Your task to perform on an android device: turn on airplane mode Image 0: 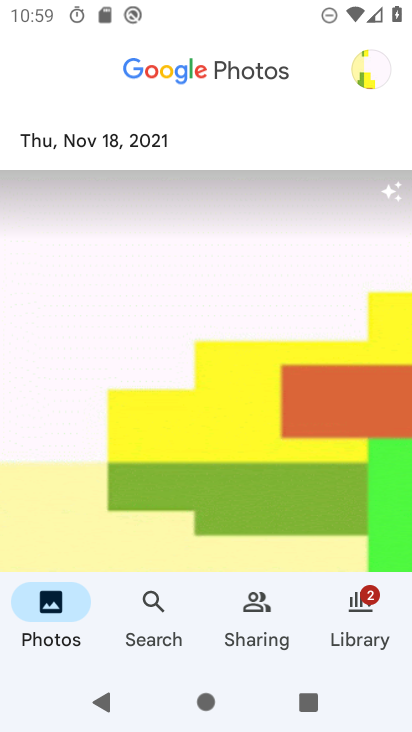
Step 0: press home button
Your task to perform on an android device: turn on airplane mode Image 1: 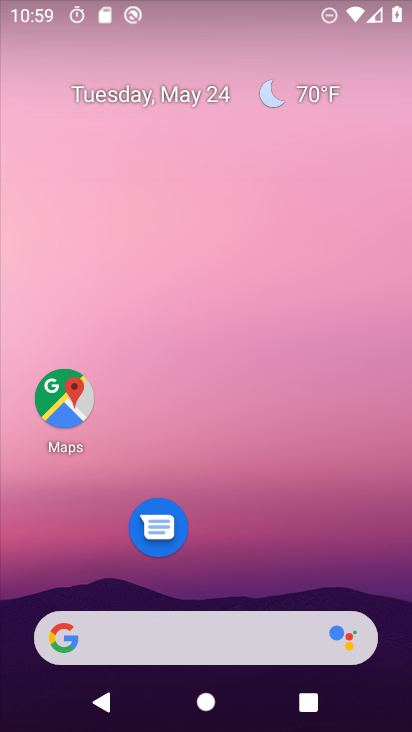
Step 1: drag from (246, 548) to (283, 6)
Your task to perform on an android device: turn on airplane mode Image 2: 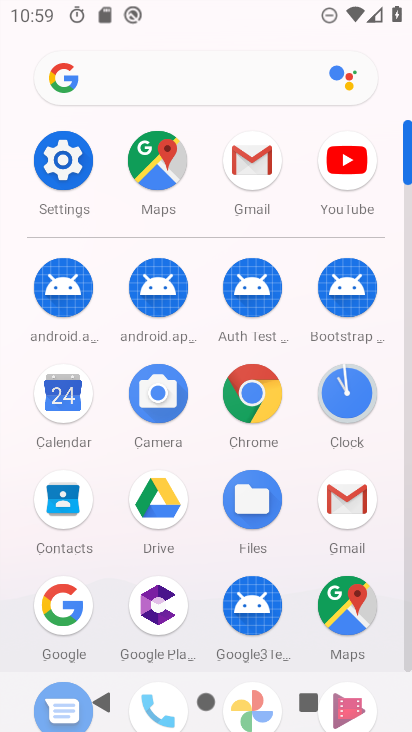
Step 2: click (66, 155)
Your task to perform on an android device: turn on airplane mode Image 3: 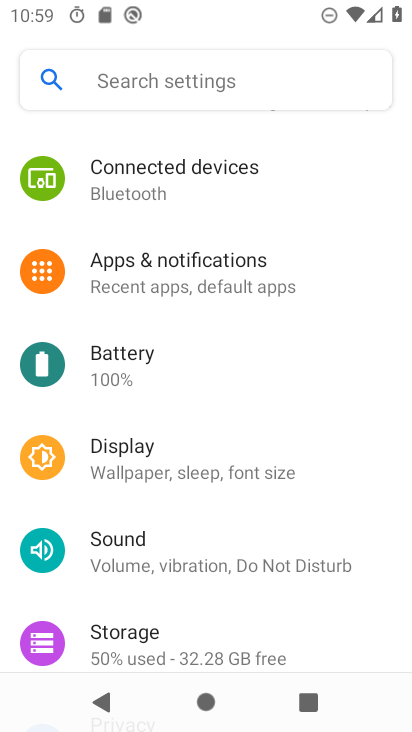
Step 3: drag from (192, 221) to (235, 635)
Your task to perform on an android device: turn on airplane mode Image 4: 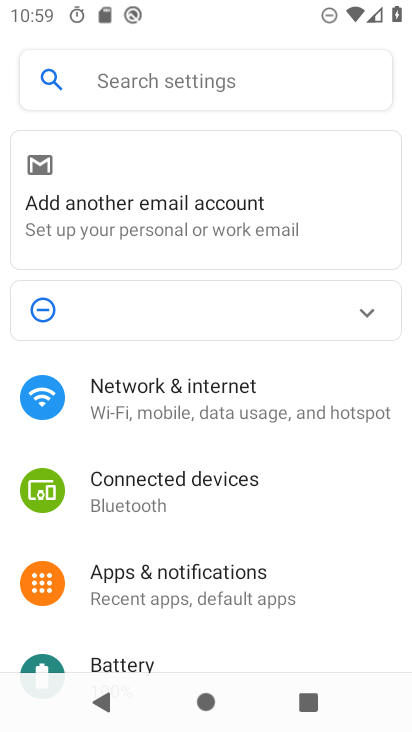
Step 4: click (198, 408)
Your task to perform on an android device: turn on airplane mode Image 5: 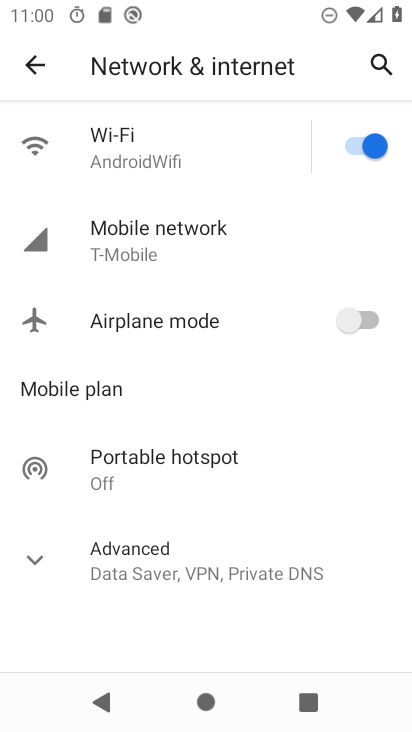
Step 5: click (365, 320)
Your task to perform on an android device: turn on airplane mode Image 6: 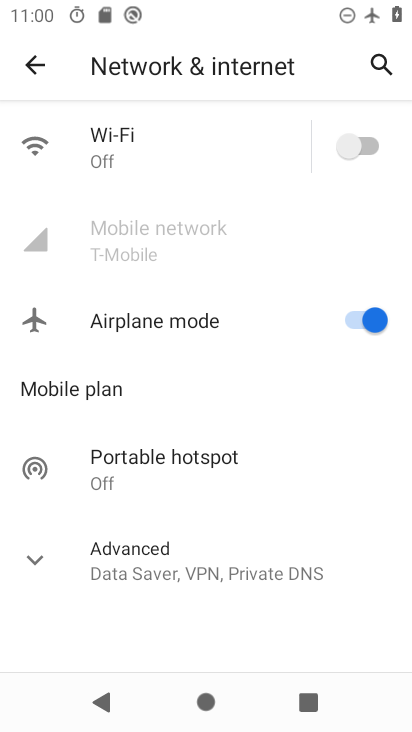
Step 6: task complete